Your task to perform on an android device: Clear the shopping cart on walmart.com. Add "panasonic triple a" to the cart on walmart.com, then select checkout. Image 0: 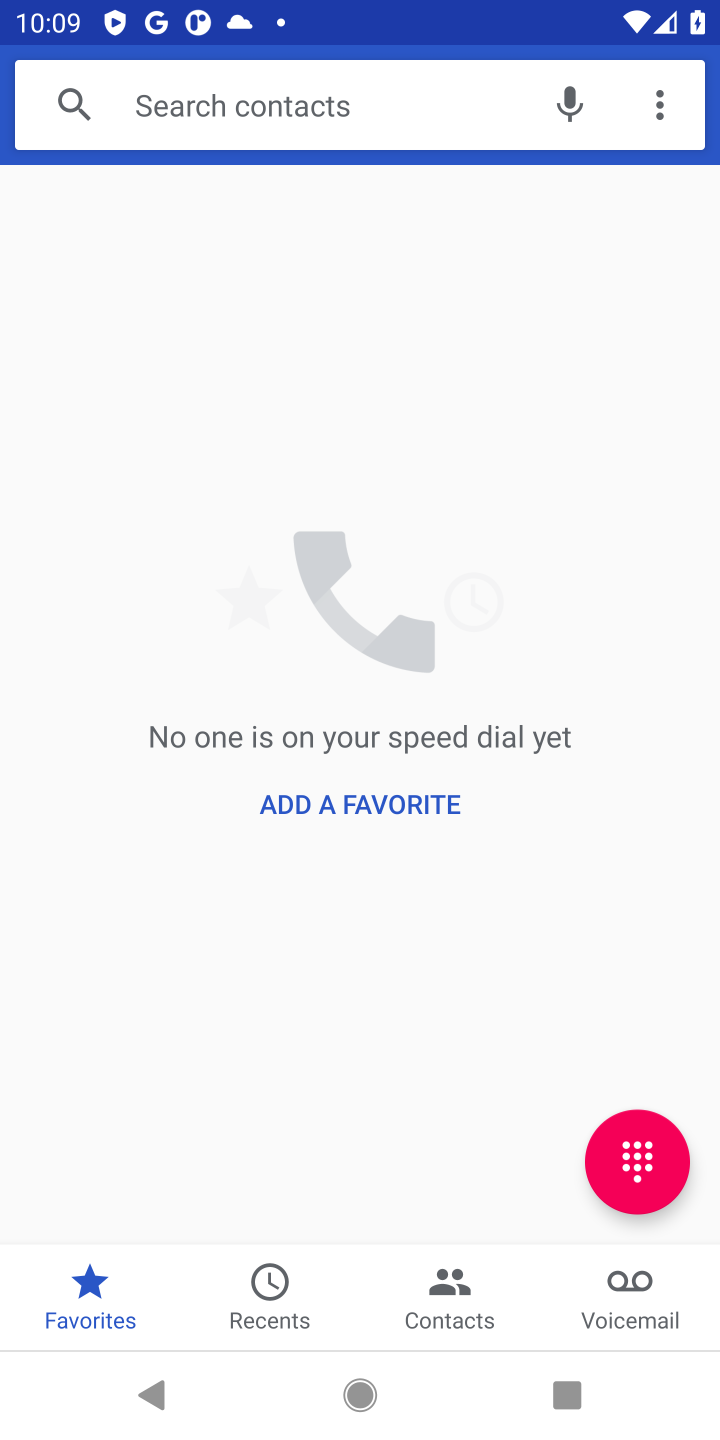
Step 0: press home button
Your task to perform on an android device: Clear the shopping cart on walmart.com. Add "panasonic triple a" to the cart on walmart.com, then select checkout. Image 1: 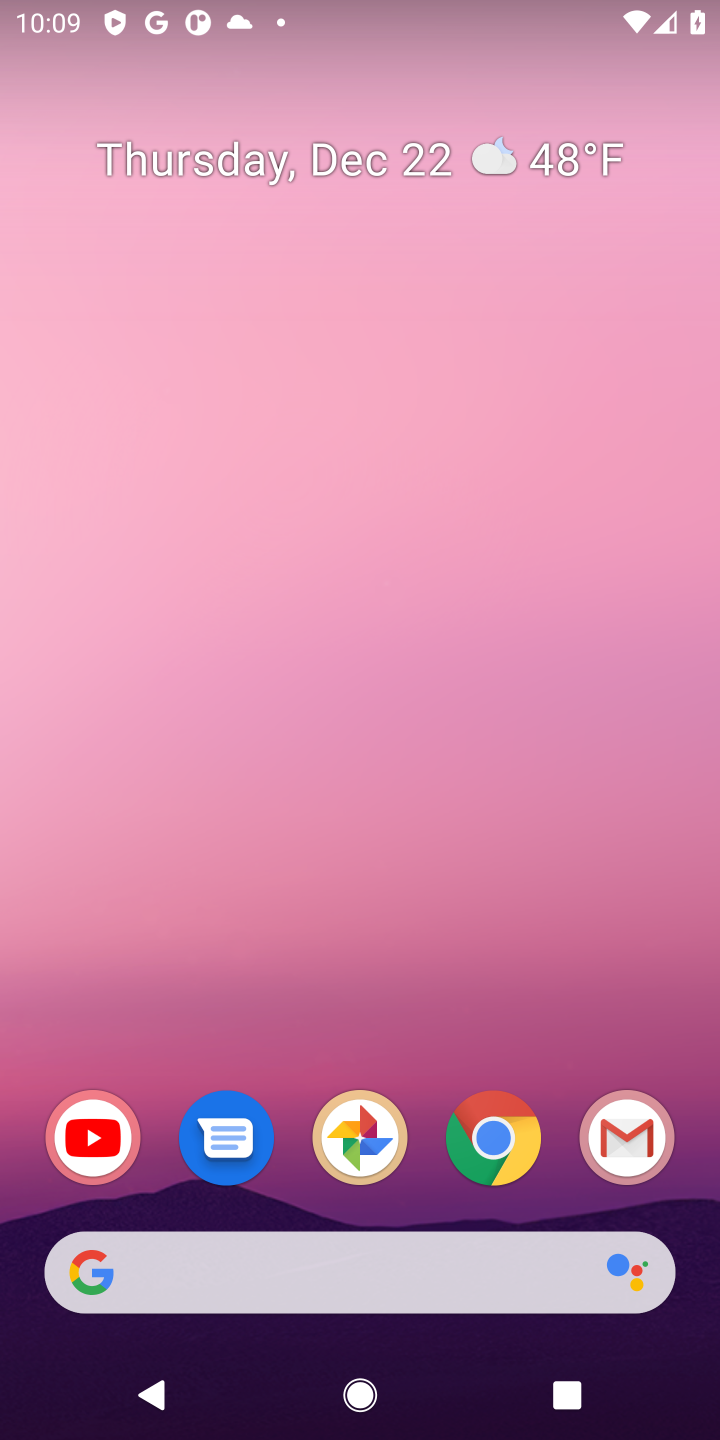
Step 1: click (508, 1130)
Your task to perform on an android device: Clear the shopping cart on walmart.com. Add "panasonic triple a" to the cart on walmart.com, then select checkout. Image 2: 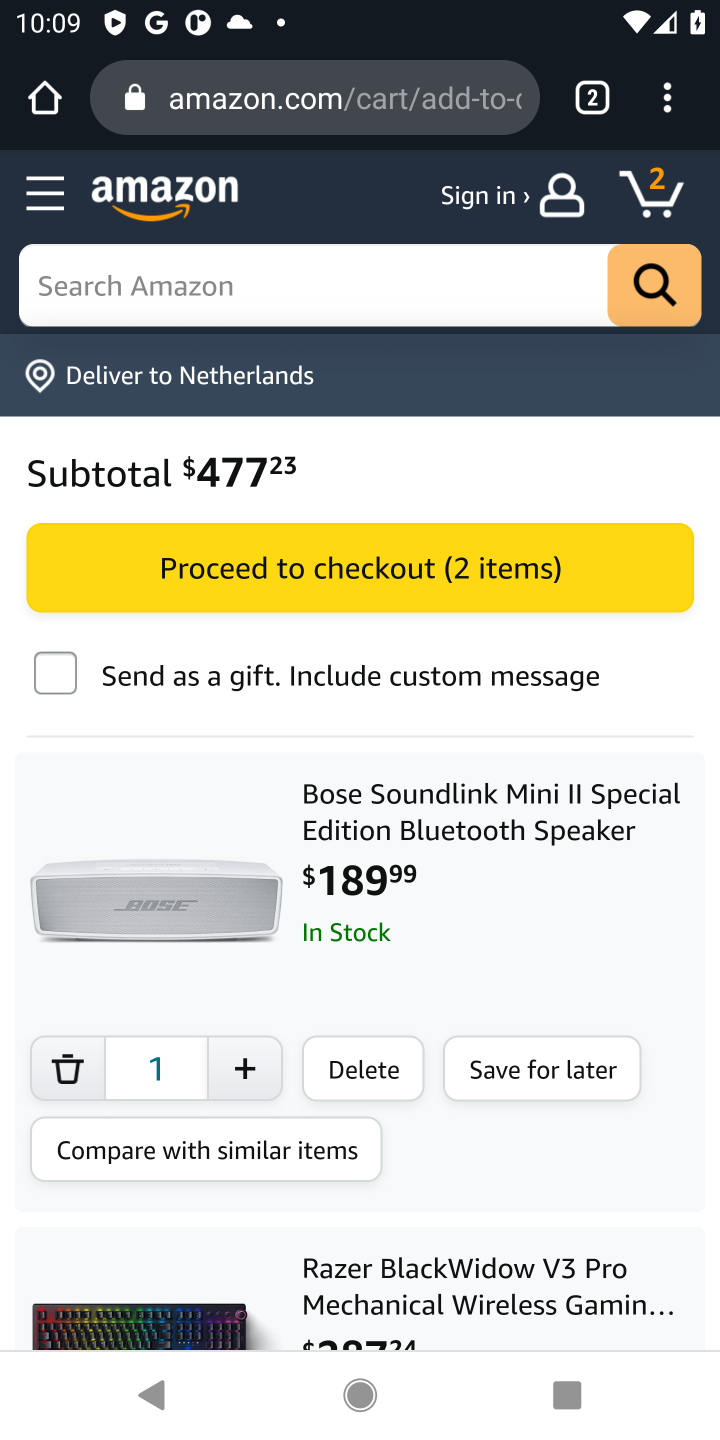
Step 2: click (441, 90)
Your task to perform on an android device: Clear the shopping cart on walmart.com. Add "panasonic triple a" to the cart on walmart.com, then select checkout. Image 3: 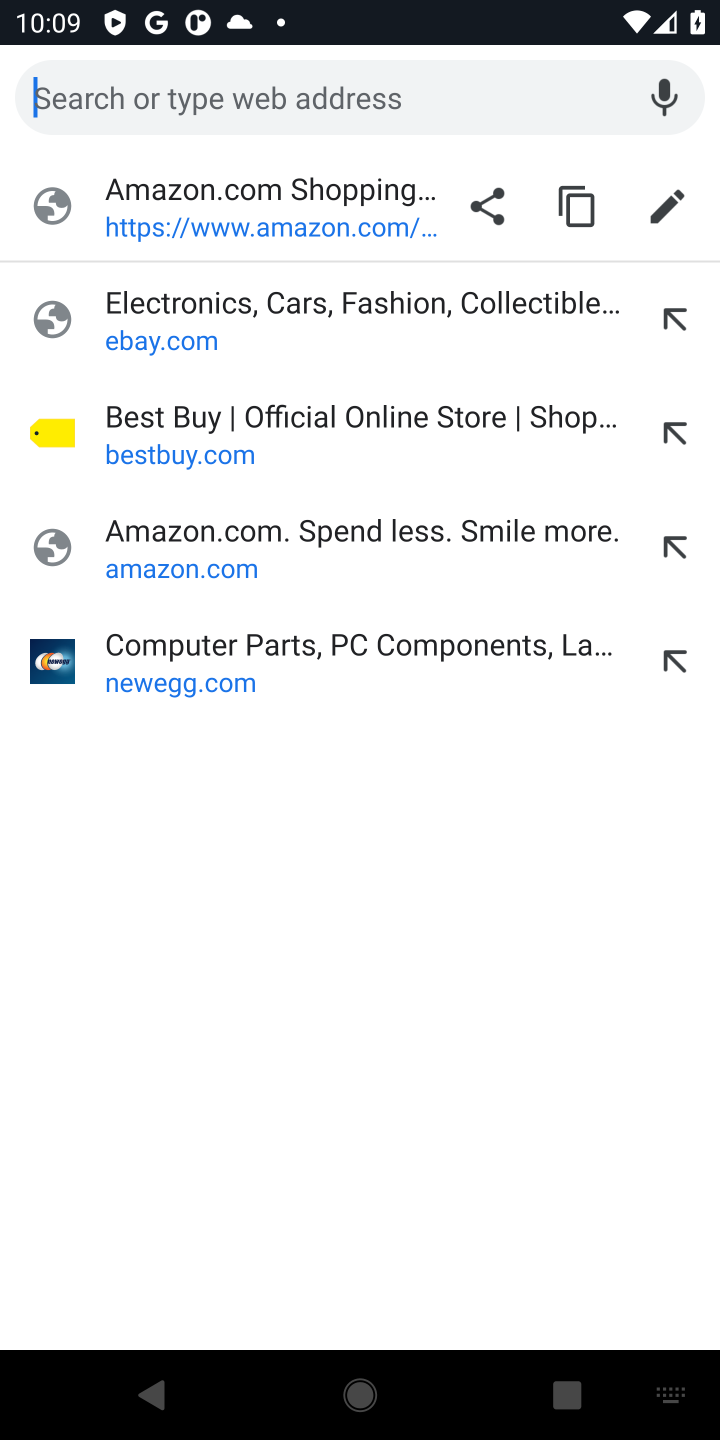
Step 3: type "walmart.com"
Your task to perform on an android device: Clear the shopping cart on walmart.com. Add "panasonic triple a" to the cart on walmart.com, then select checkout. Image 4: 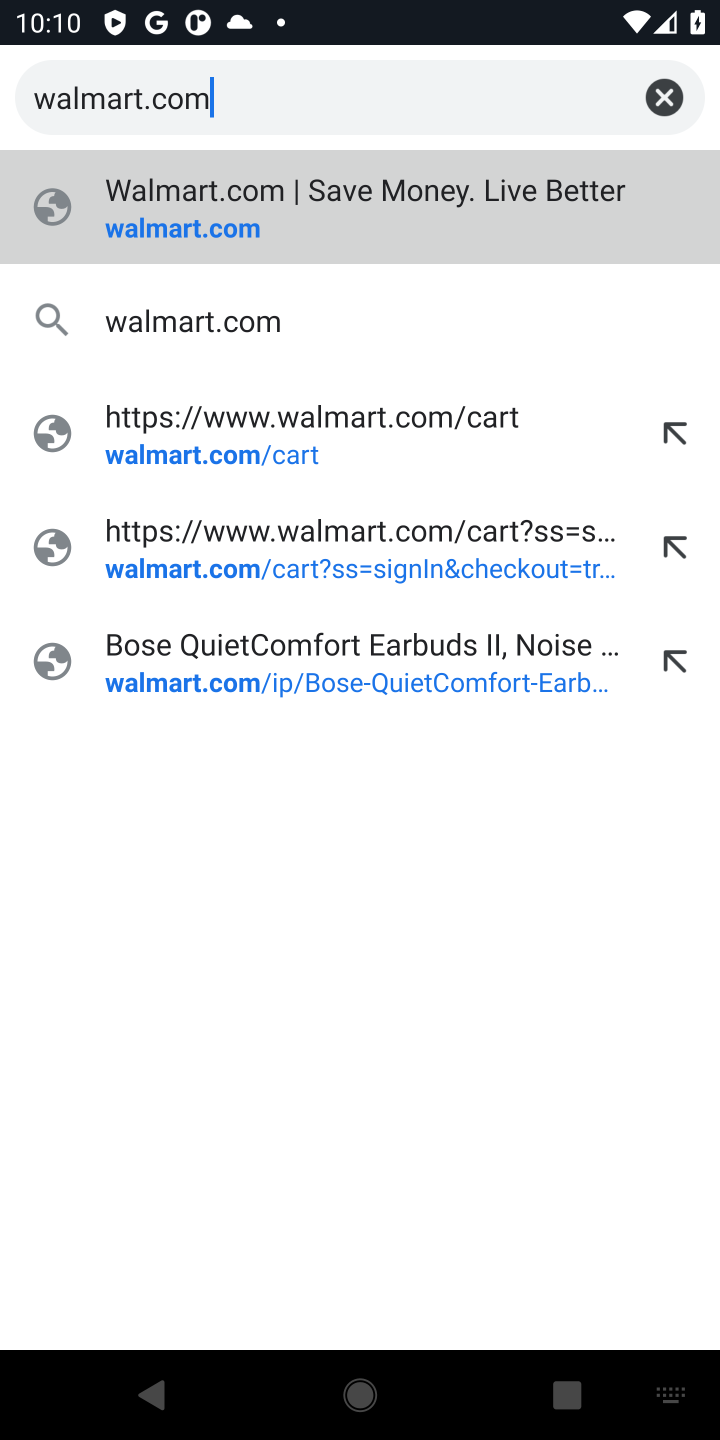
Step 4: click (221, 330)
Your task to perform on an android device: Clear the shopping cart on walmart.com. Add "panasonic triple a" to the cart on walmart.com, then select checkout. Image 5: 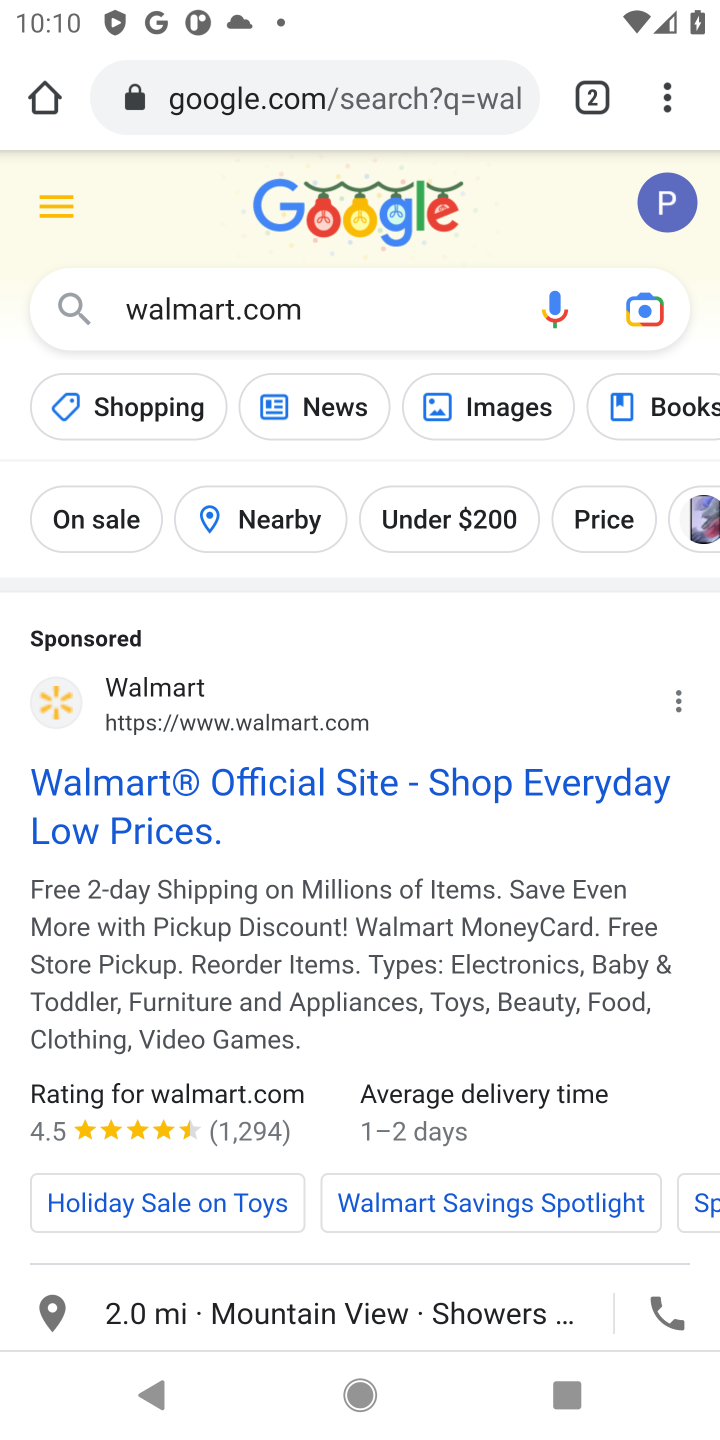
Step 5: click (221, 717)
Your task to perform on an android device: Clear the shopping cart on walmart.com. Add "panasonic triple a" to the cart on walmart.com, then select checkout. Image 6: 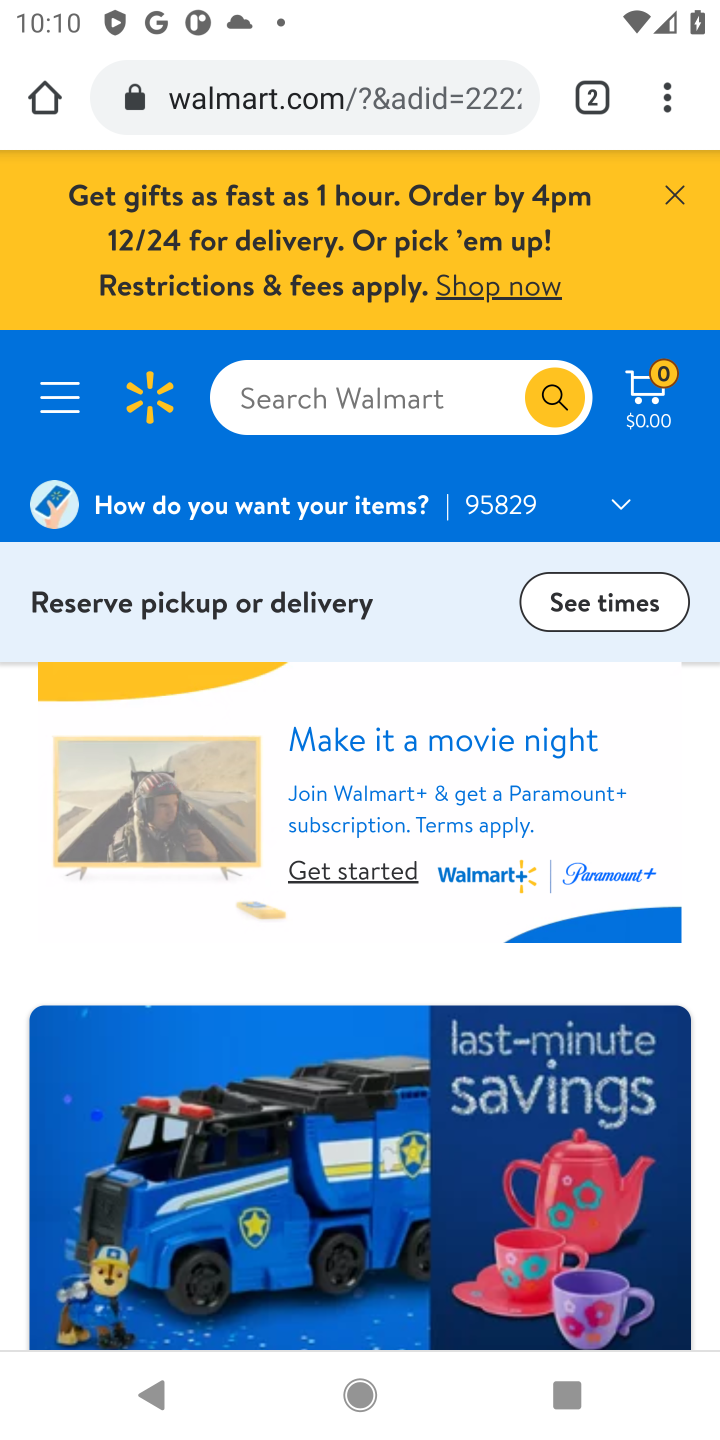
Step 6: click (663, 194)
Your task to perform on an android device: Clear the shopping cart on walmart.com. Add "panasonic triple a" to the cart on walmart.com, then select checkout. Image 7: 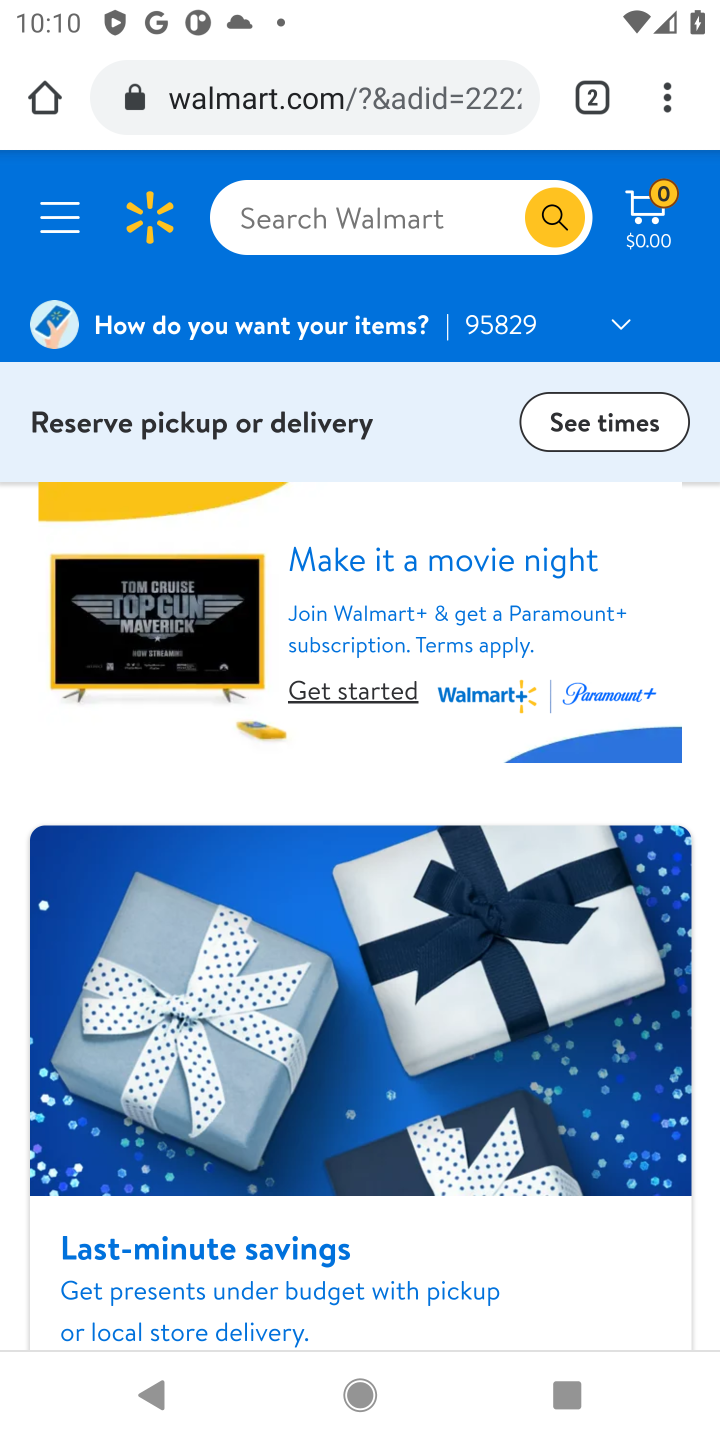
Step 7: click (432, 205)
Your task to perform on an android device: Clear the shopping cart on walmart.com. Add "panasonic triple a" to the cart on walmart.com, then select checkout. Image 8: 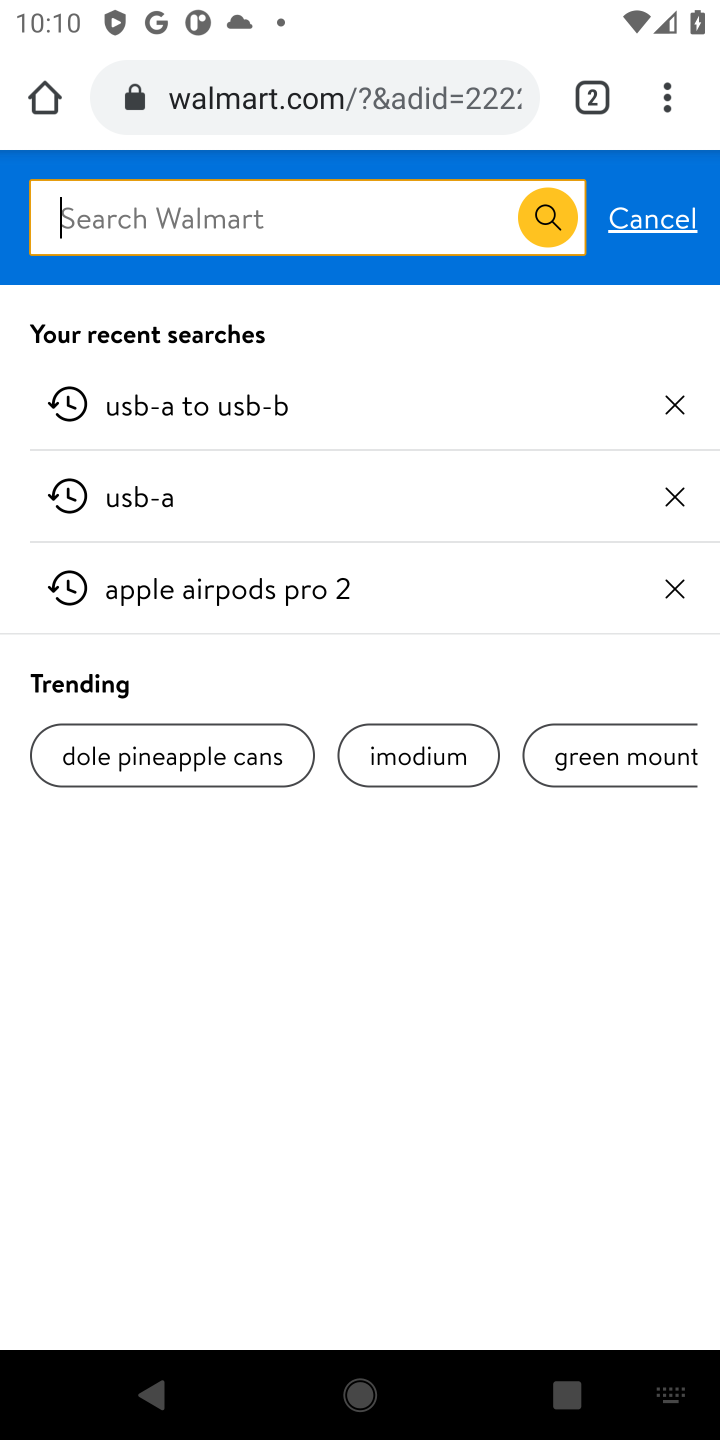
Step 8: type "panasonic triple a"
Your task to perform on an android device: Clear the shopping cart on walmart.com. Add "panasonic triple a" to the cart on walmart.com, then select checkout. Image 9: 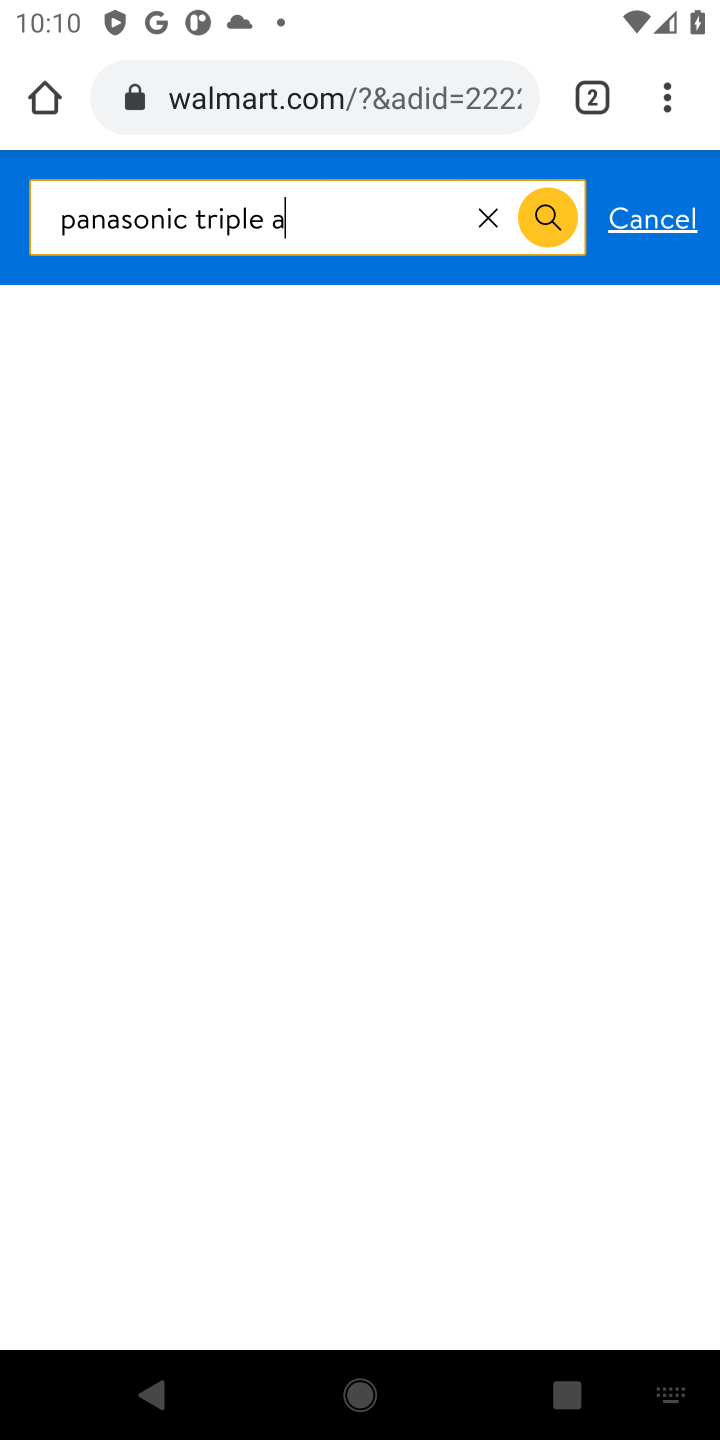
Step 9: press enter
Your task to perform on an android device: Clear the shopping cart on walmart.com. Add "panasonic triple a" to the cart on walmart.com, then select checkout. Image 10: 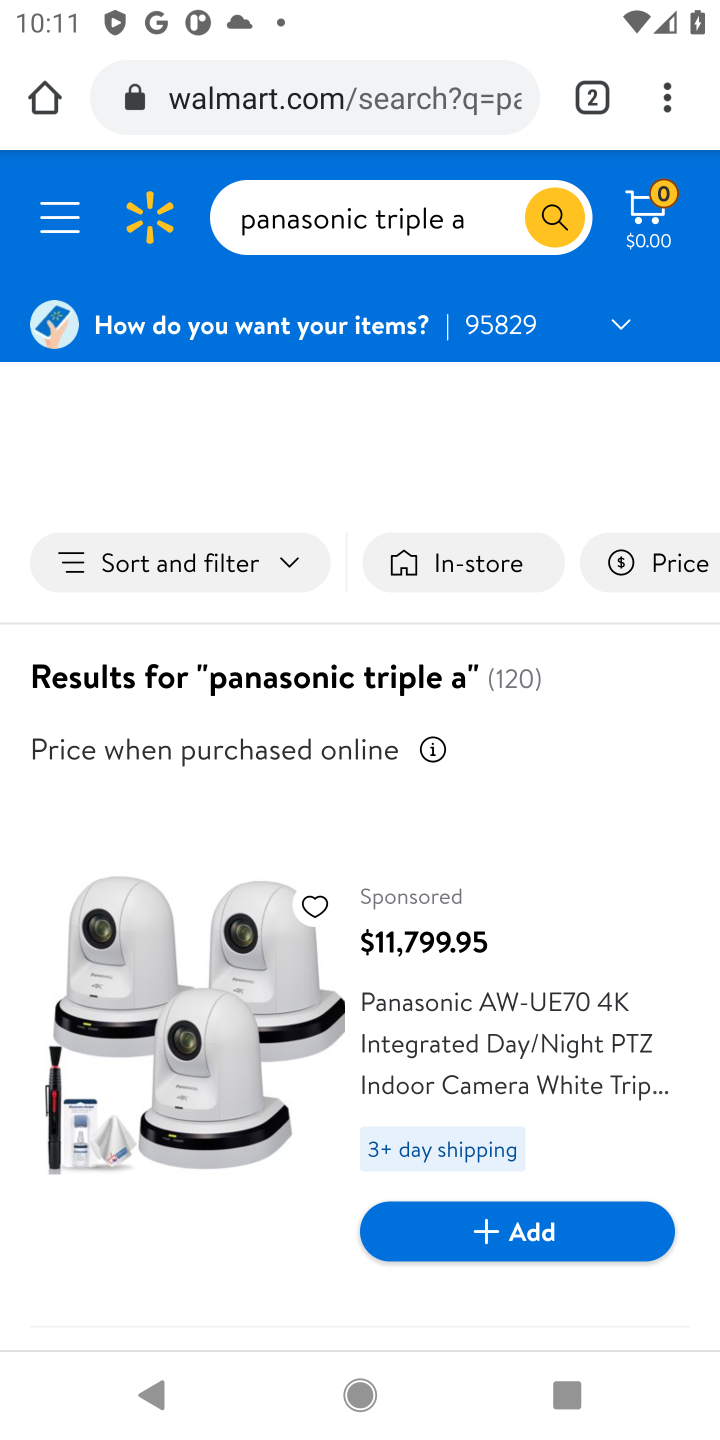
Step 10: drag from (448, 1036) to (548, 373)
Your task to perform on an android device: Clear the shopping cart on walmart.com. Add "panasonic triple a" to the cart on walmart.com, then select checkout. Image 11: 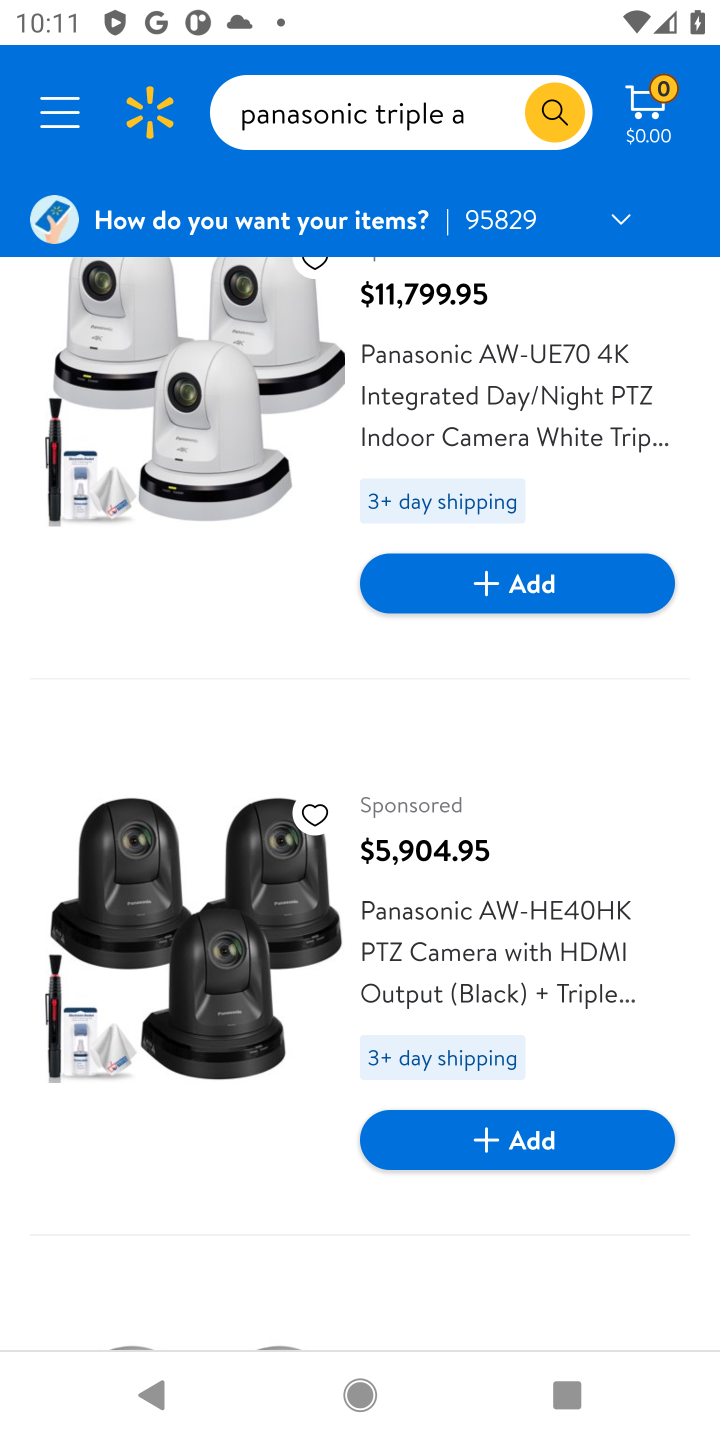
Step 11: click (208, 953)
Your task to perform on an android device: Clear the shopping cart on walmart.com. Add "panasonic triple a" to the cart on walmart.com, then select checkout. Image 12: 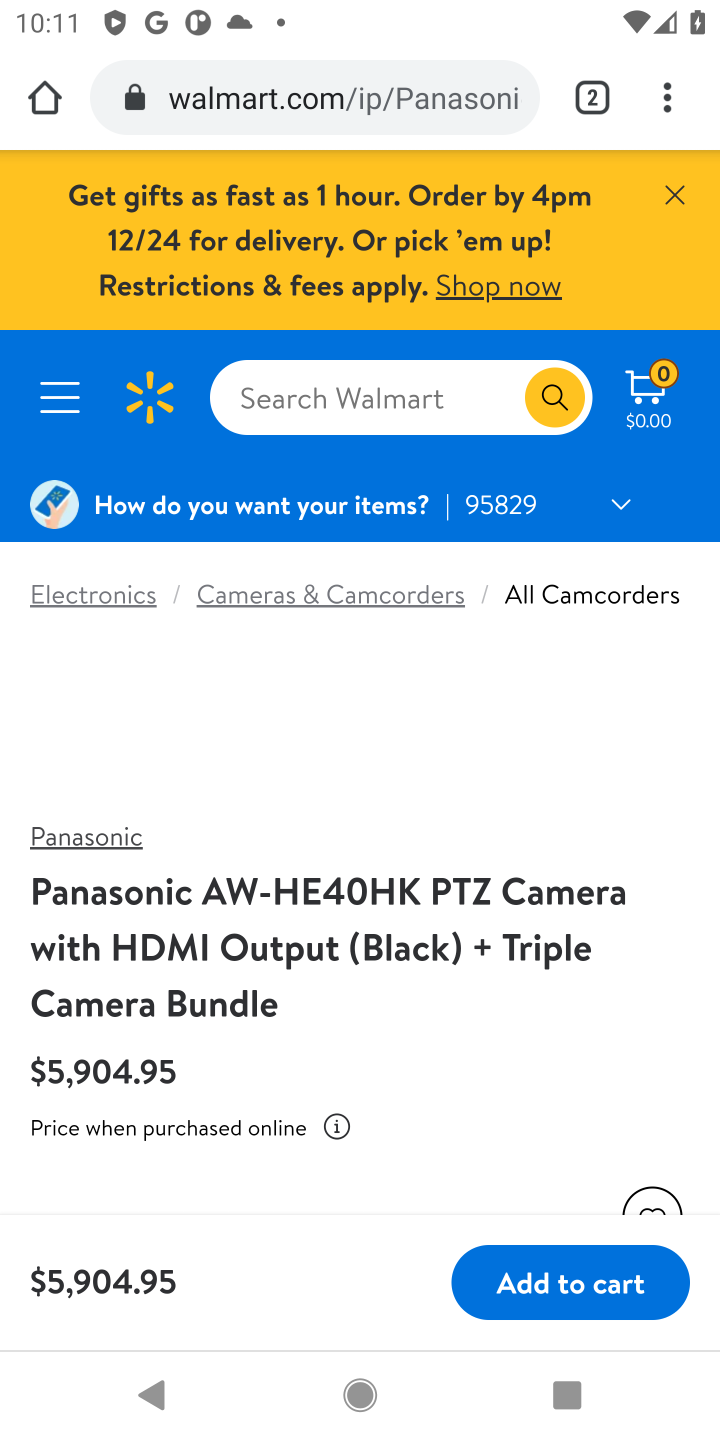
Step 12: click (590, 1267)
Your task to perform on an android device: Clear the shopping cart on walmart.com. Add "panasonic triple a" to the cart on walmart.com, then select checkout. Image 13: 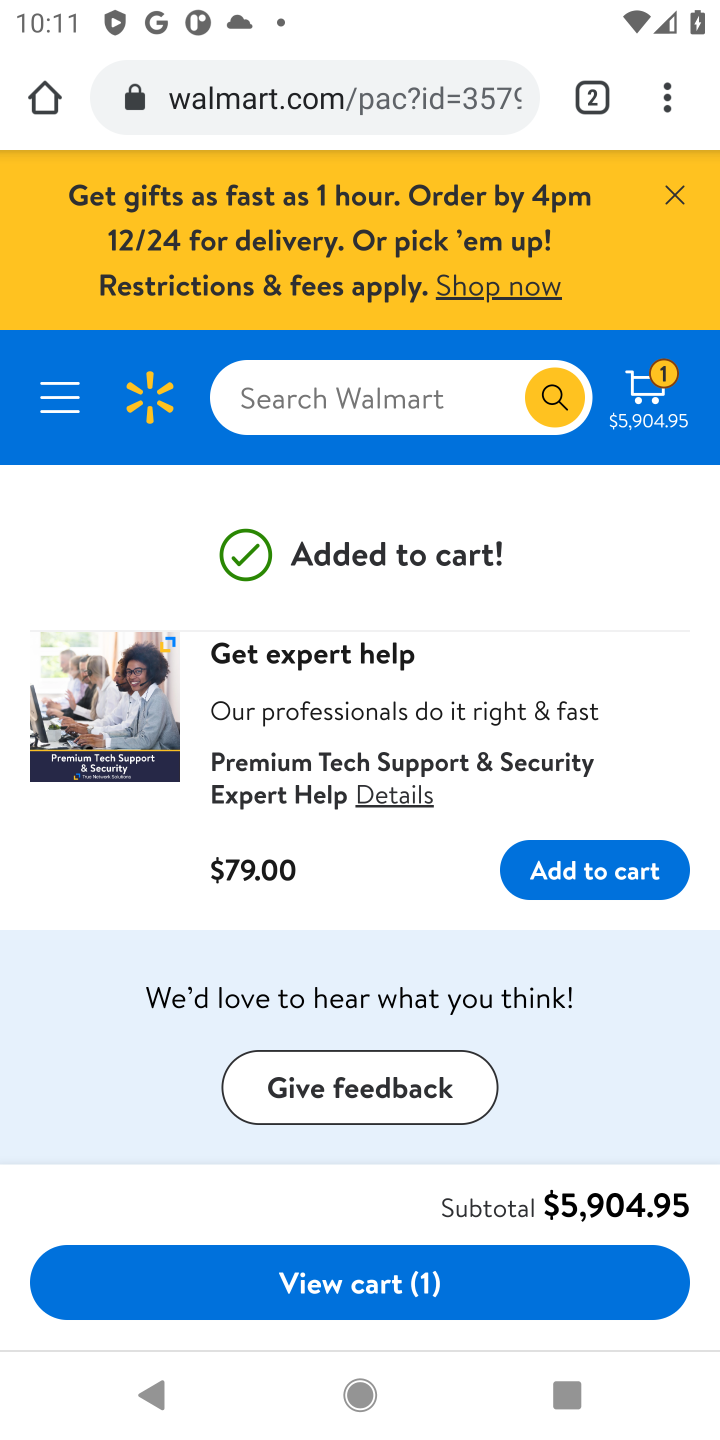
Step 13: click (331, 1278)
Your task to perform on an android device: Clear the shopping cart on walmart.com. Add "panasonic triple a" to the cart on walmart.com, then select checkout. Image 14: 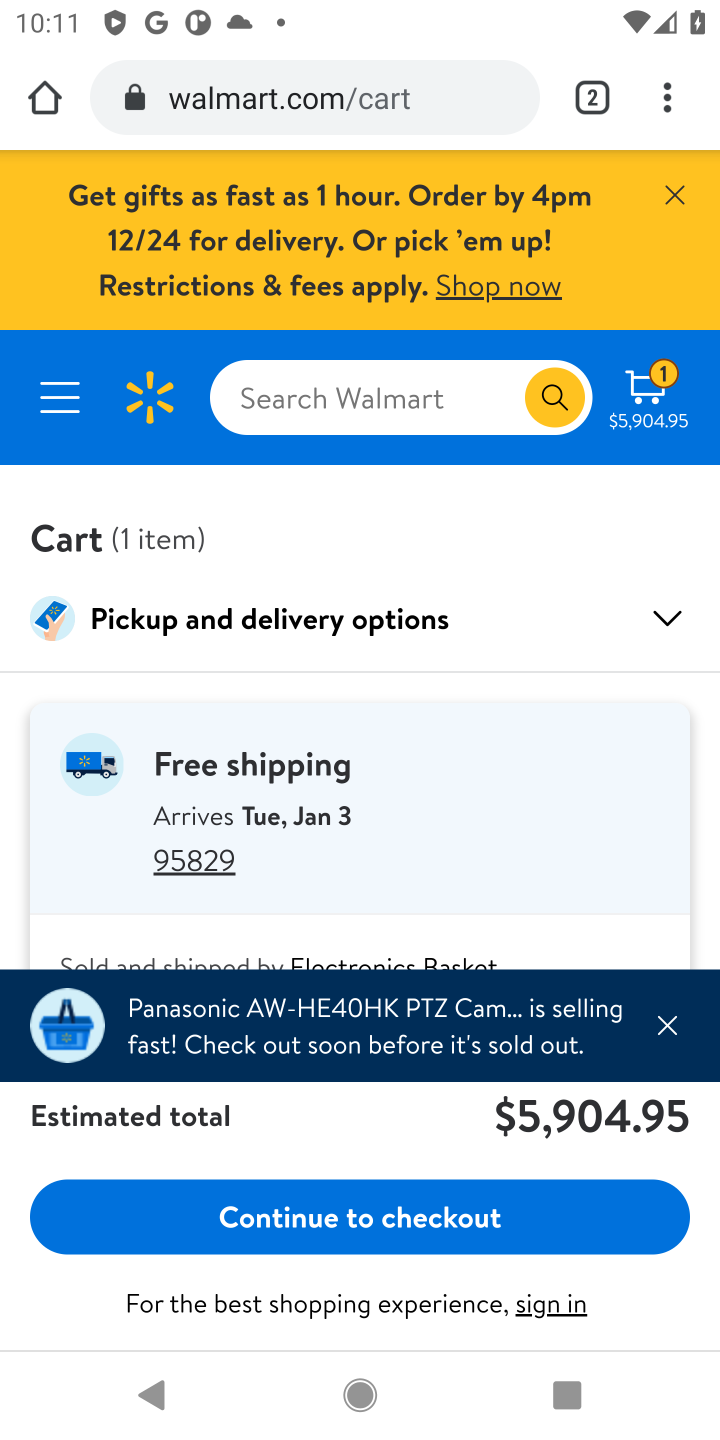
Step 14: click (286, 1226)
Your task to perform on an android device: Clear the shopping cart on walmart.com. Add "panasonic triple a" to the cart on walmart.com, then select checkout. Image 15: 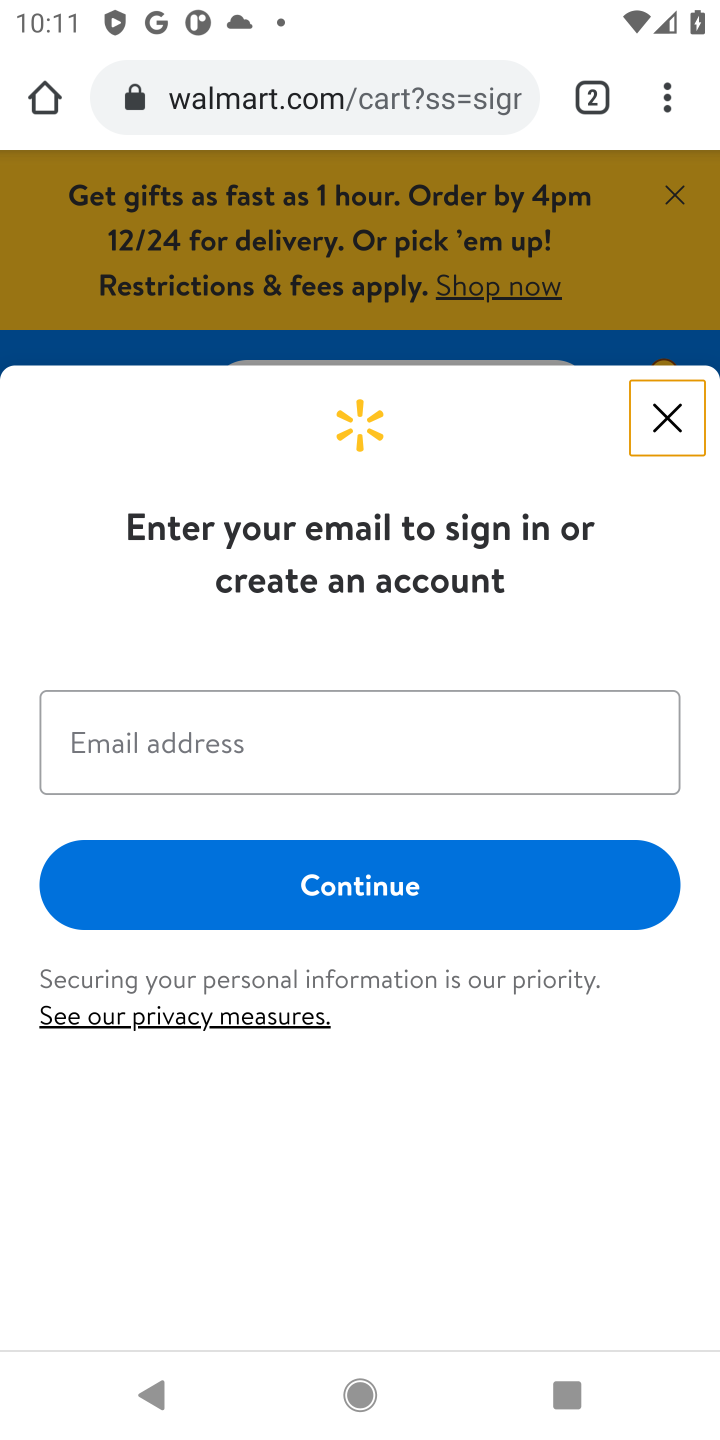
Step 15: click (676, 433)
Your task to perform on an android device: Clear the shopping cart on walmart.com. Add "panasonic triple a" to the cart on walmart.com, then select checkout. Image 16: 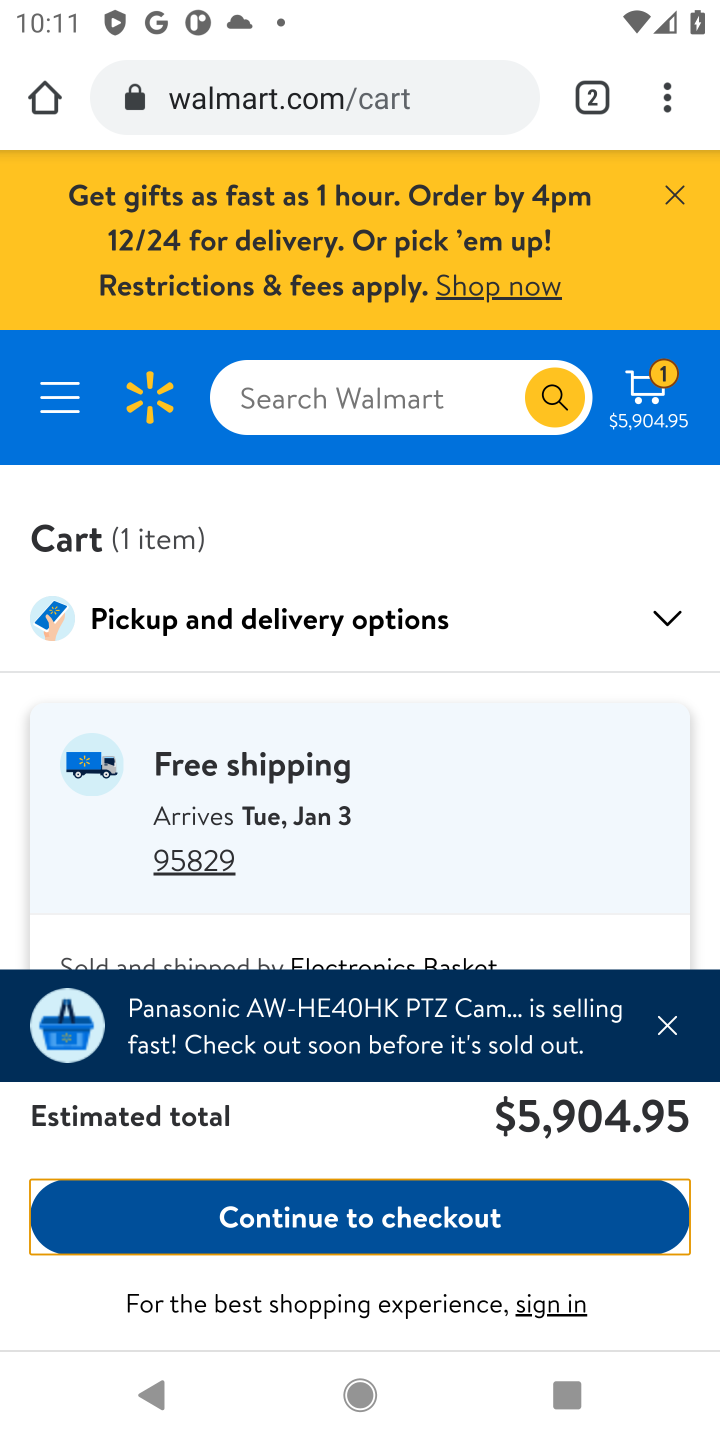
Step 16: task complete